Your task to perform on an android device: move an email to a new category in the gmail app Image 0: 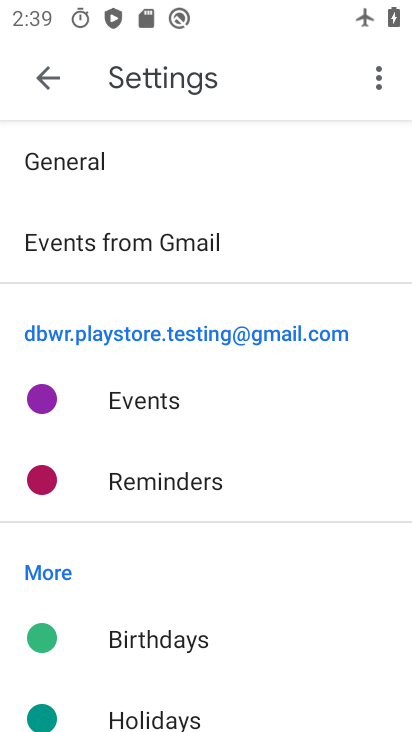
Step 0: press home button
Your task to perform on an android device: move an email to a new category in the gmail app Image 1: 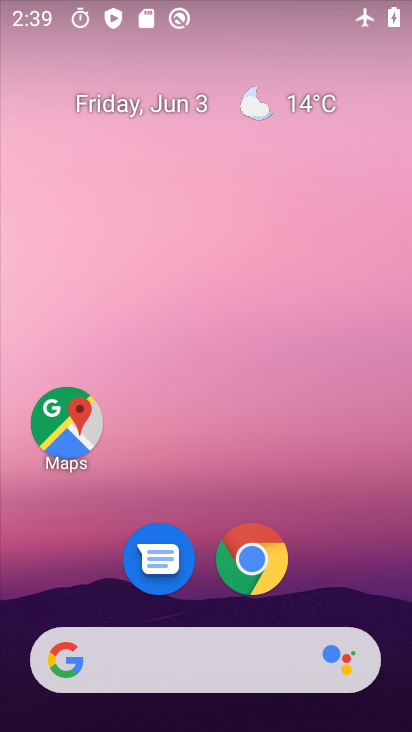
Step 1: drag from (193, 607) to (200, 390)
Your task to perform on an android device: move an email to a new category in the gmail app Image 2: 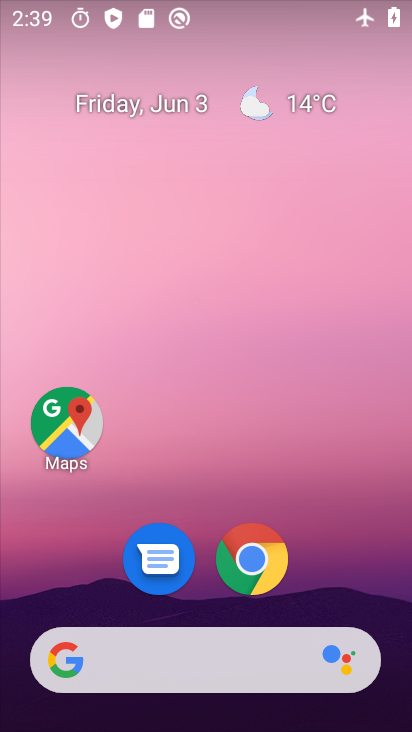
Step 2: drag from (161, 615) to (160, 0)
Your task to perform on an android device: move an email to a new category in the gmail app Image 3: 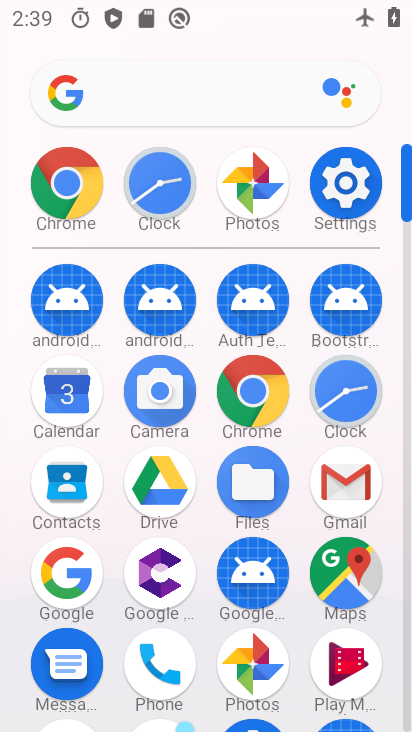
Step 3: click (332, 488)
Your task to perform on an android device: move an email to a new category in the gmail app Image 4: 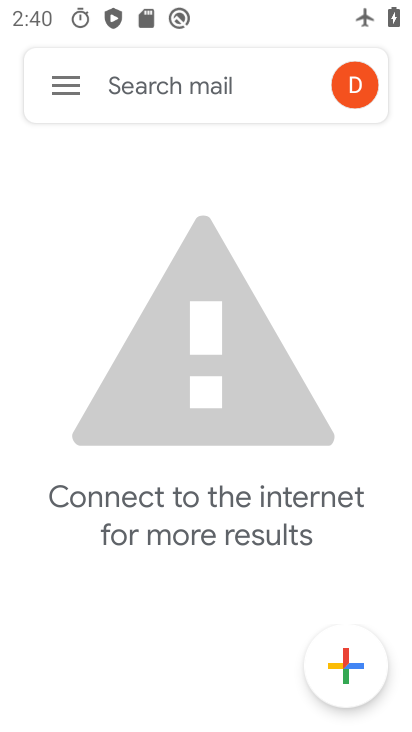
Step 4: task complete